Your task to perform on an android device: Go to eBay Image 0: 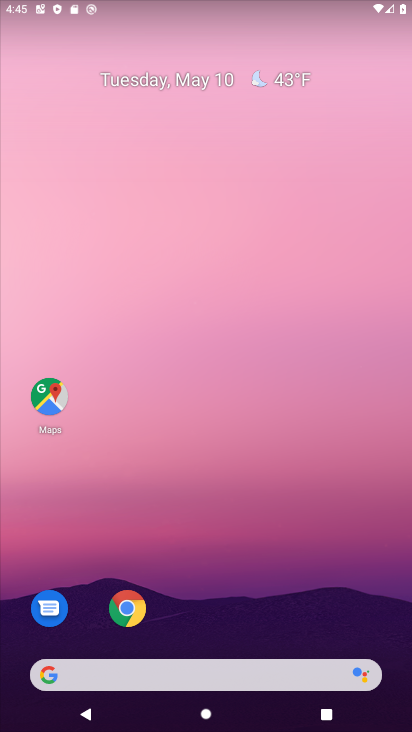
Step 0: click (125, 672)
Your task to perform on an android device: Go to eBay Image 1: 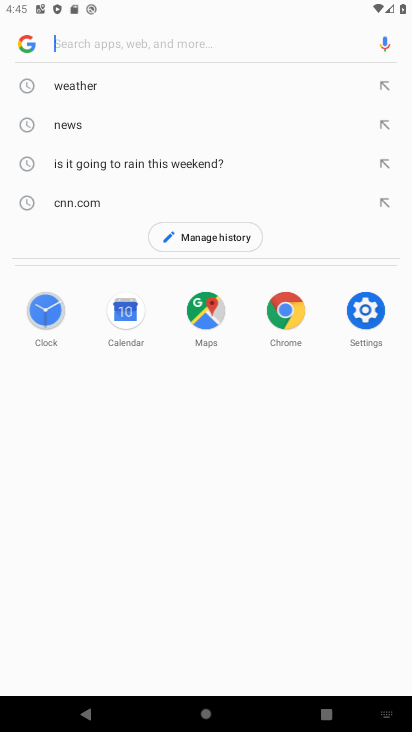
Step 1: press back button
Your task to perform on an android device: Go to eBay Image 2: 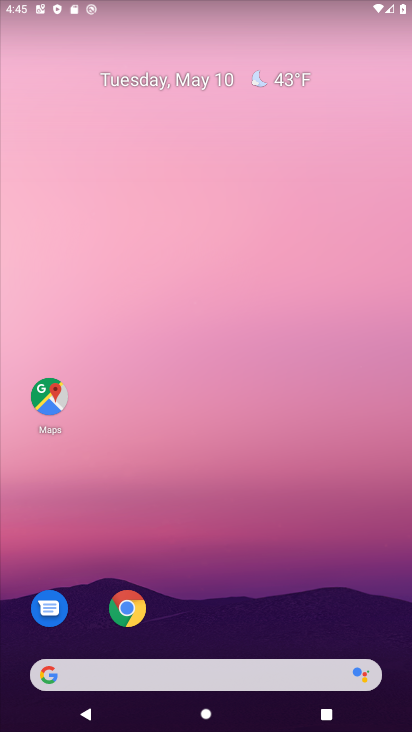
Step 2: click (124, 617)
Your task to perform on an android device: Go to eBay Image 3: 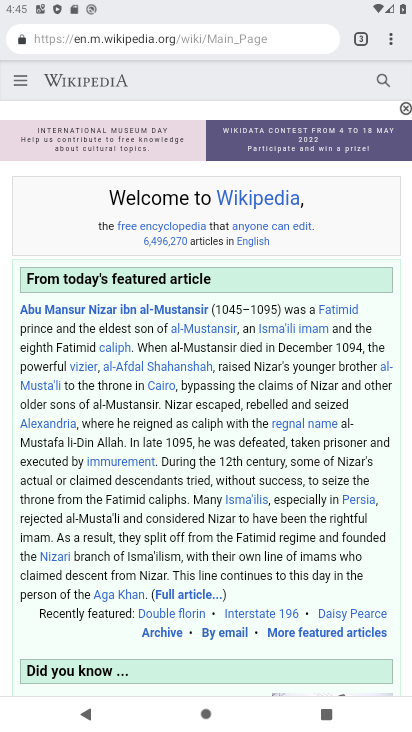
Step 3: click (360, 38)
Your task to perform on an android device: Go to eBay Image 4: 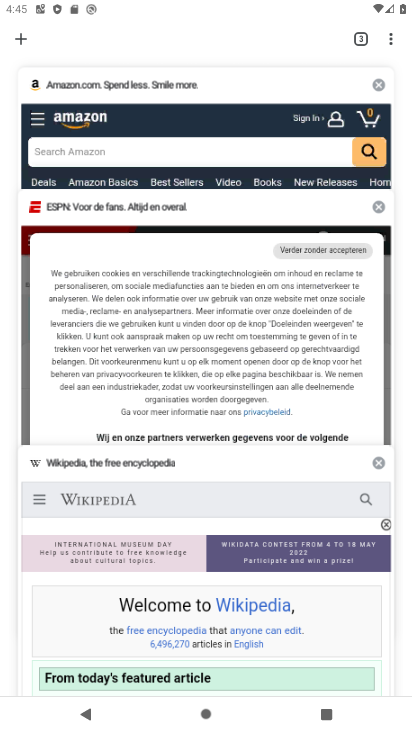
Step 4: click (23, 37)
Your task to perform on an android device: Go to eBay Image 5: 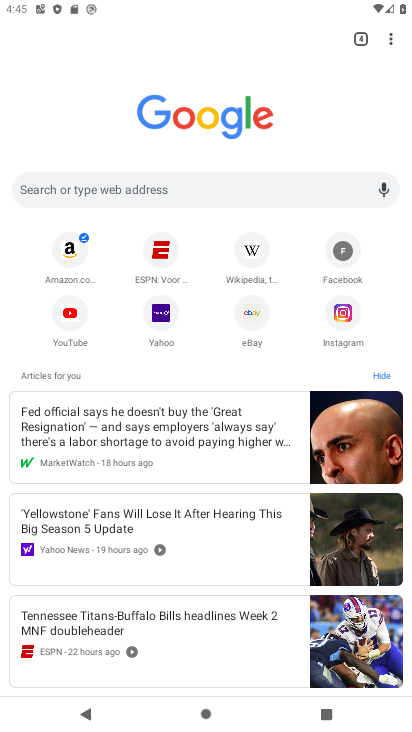
Step 5: click (162, 185)
Your task to perform on an android device: Go to eBay Image 6: 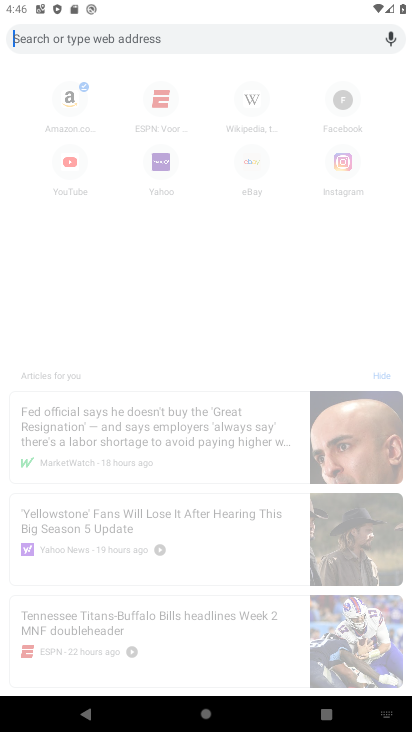
Step 6: click (122, 43)
Your task to perform on an android device: Go to eBay Image 7: 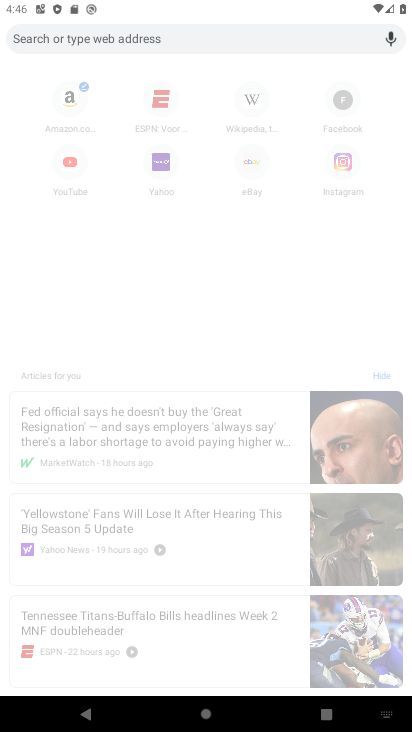
Step 7: type "ebay"
Your task to perform on an android device: Go to eBay Image 8: 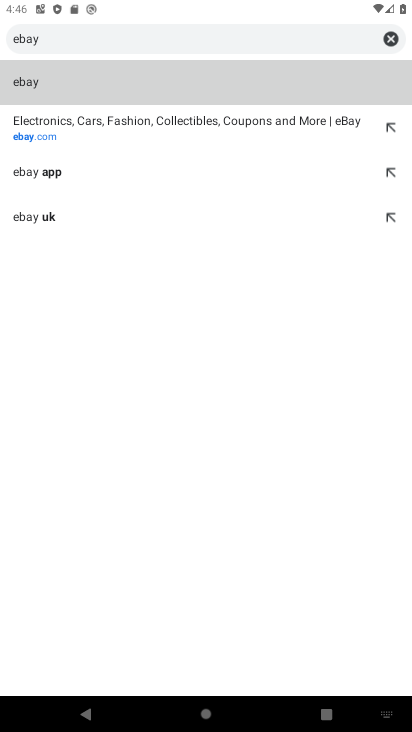
Step 8: click (89, 136)
Your task to perform on an android device: Go to eBay Image 9: 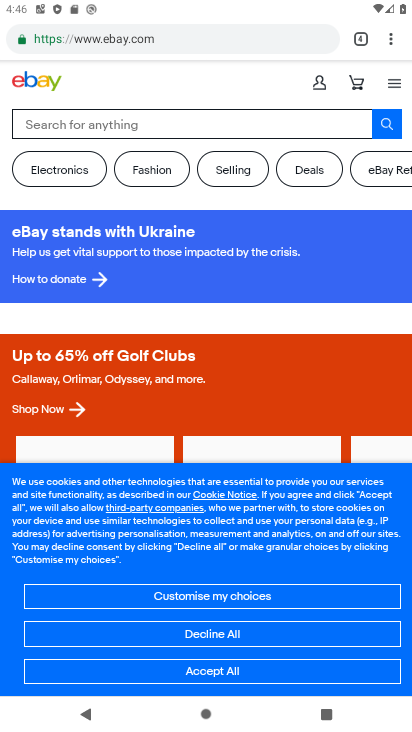
Step 9: task complete